Your task to perform on an android device: change the clock display to analog Image 0: 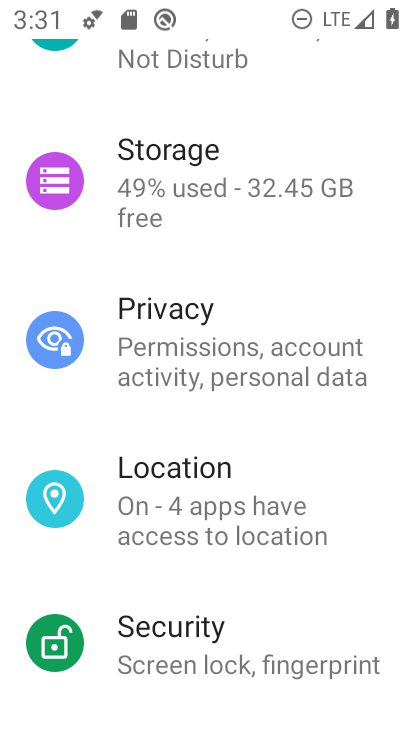
Step 0: press home button
Your task to perform on an android device: change the clock display to analog Image 1: 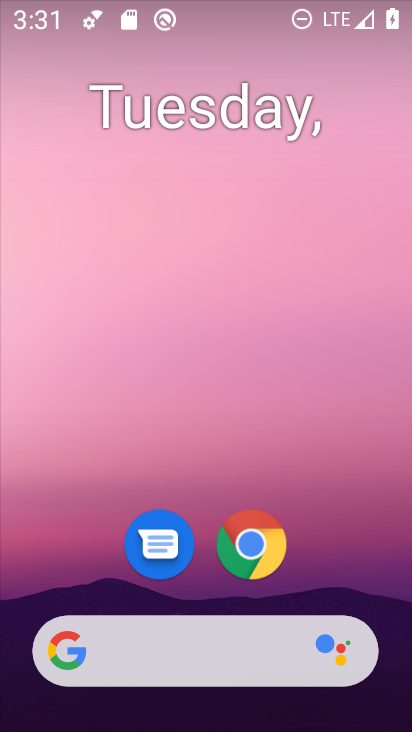
Step 1: drag from (370, 577) to (331, 67)
Your task to perform on an android device: change the clock display to analog Image 2: 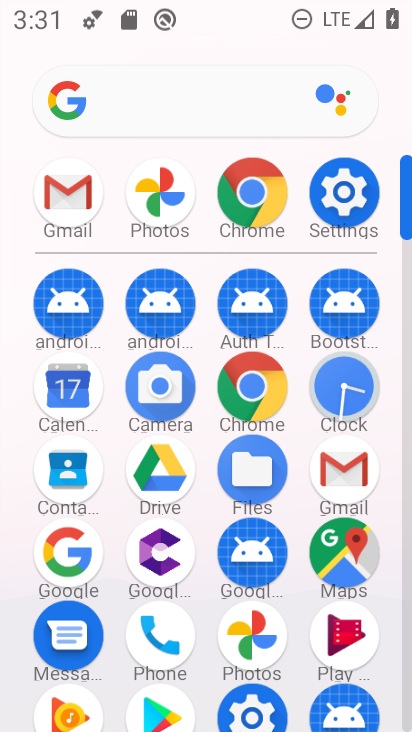
Step 2: click (363, 399)
Your task to perform on an android device: change the clock display to analog Image 3: 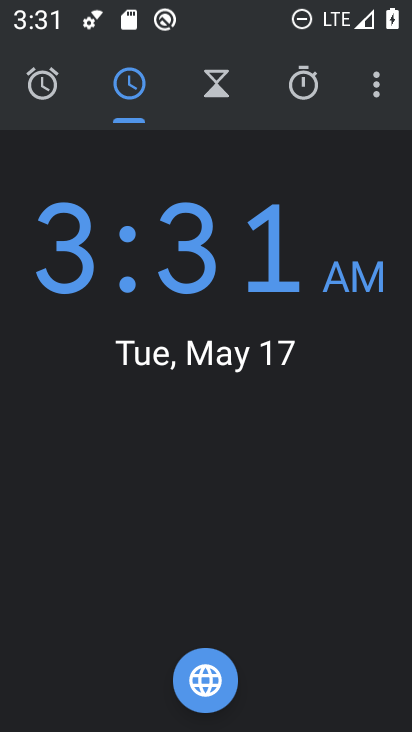
Step 3: click (381, 89)
Your task to perform on an android device: change the clock display to analog Image 4: 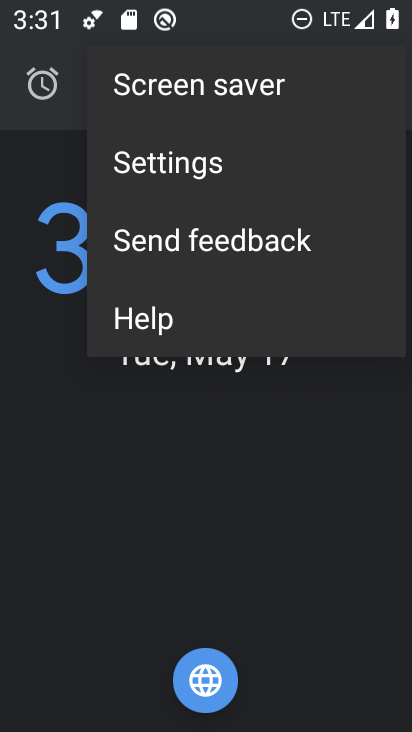
Step 4: click (229, 160)
Your task to perform on an android device: change the clock display to analog Image 5: 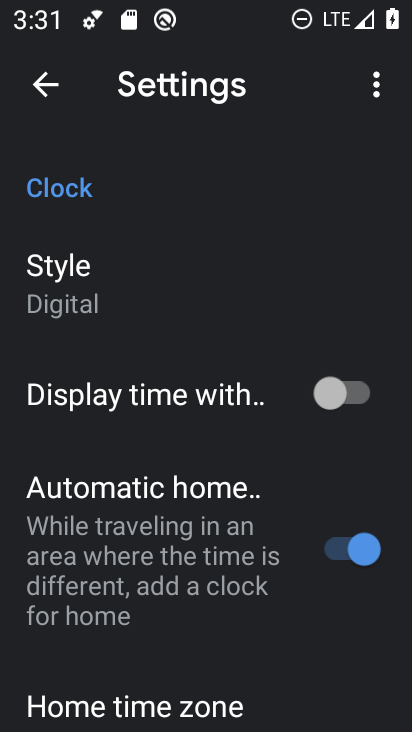
Step 5: drag from (296, 634) to (291, 449)
Your task to perform on an android device: change the clock display to analog Image 6: 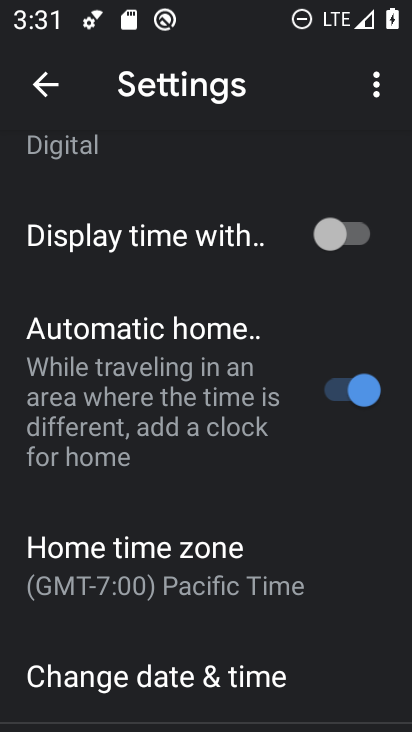
Step 6: drag from (303, 632) to (305, 501)
Your task to perform on an android device: change the clock display to analog Image 7: 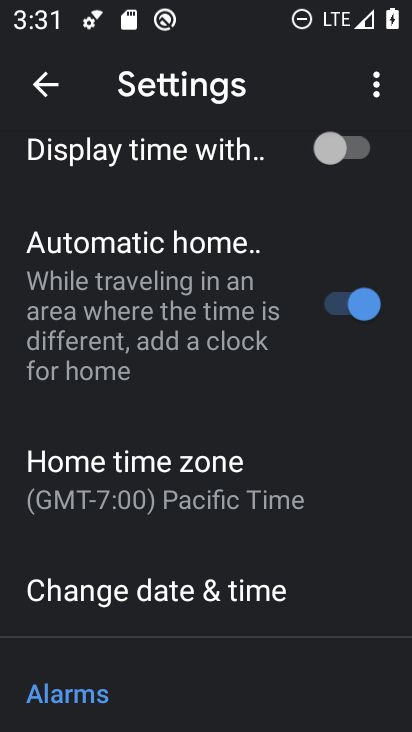
Step 7: drag from (302, 653) to (302, 448)
Your task to perform on an android device: change the clock display to analog Image 8: 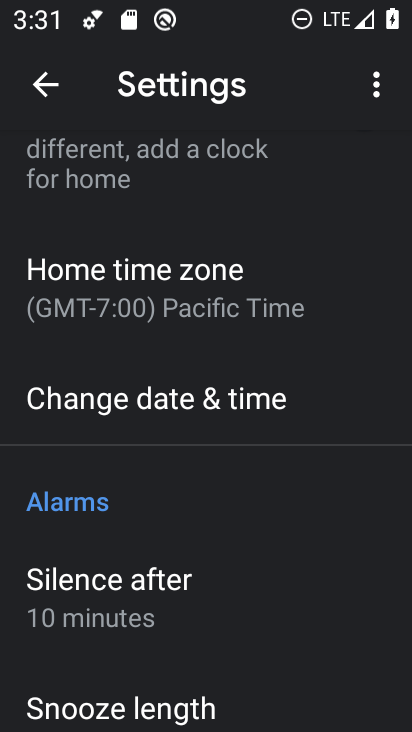
Step 8: drag from (298, 615) to (305, 489)
Your task to perform on an android device: change the clock display to analog Image 9: 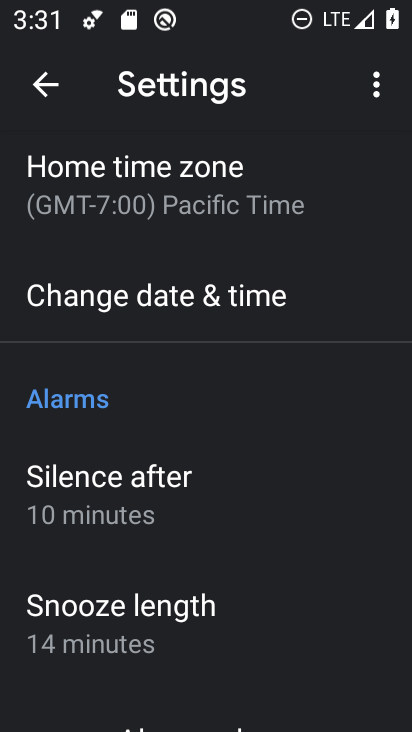
Step 9: drag from (300, 641) to (298, 535)
Your task to perform on an android device: change the clock display to analog Image 10: 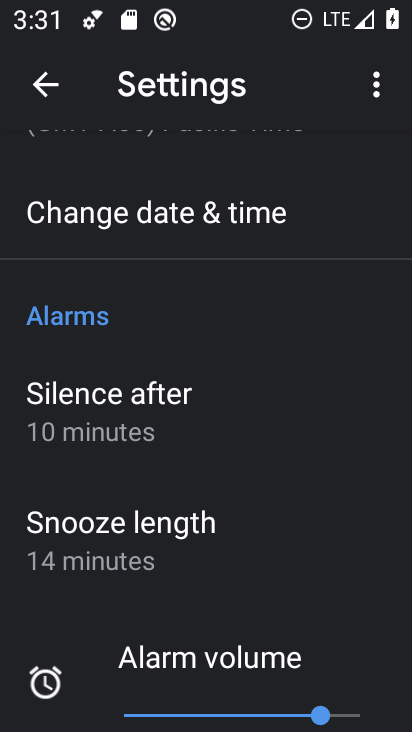
Step 10: drag from (319, 621) to (337, 498)
Your task to perform on an android device: change the clock display to analog Image 11: 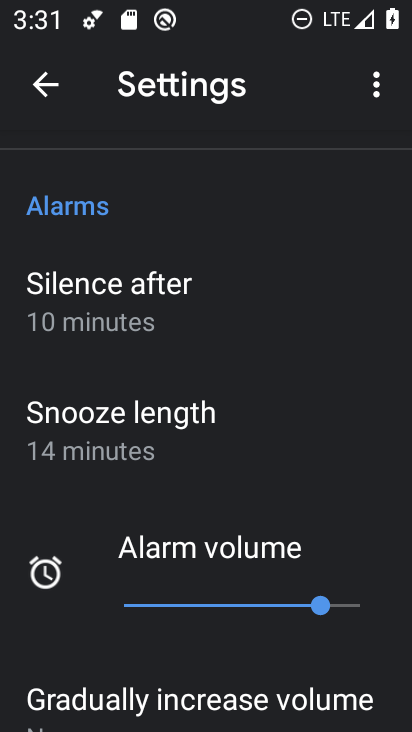
Step 11: drag from (328, 658) to (329, 533)
Your task to perform on an android device: change the clock display to analog Image 12: 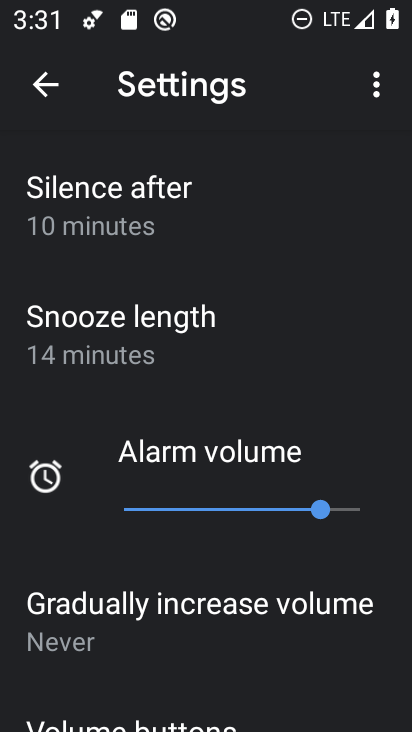
Step 12: drag from (322, 662) to (315, 519)
Your task to perform on an android device: change the clock display to analog Image 13: 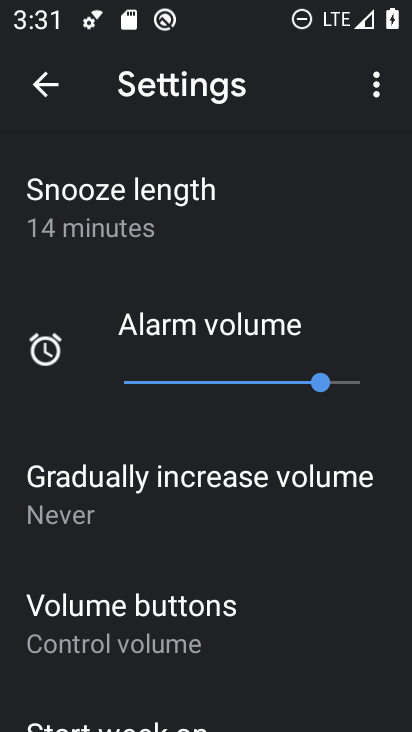
Step 13: drag from (302, 661) to (316, 534)
Your task to perform on an android device: change the clock display to analog Image 14: 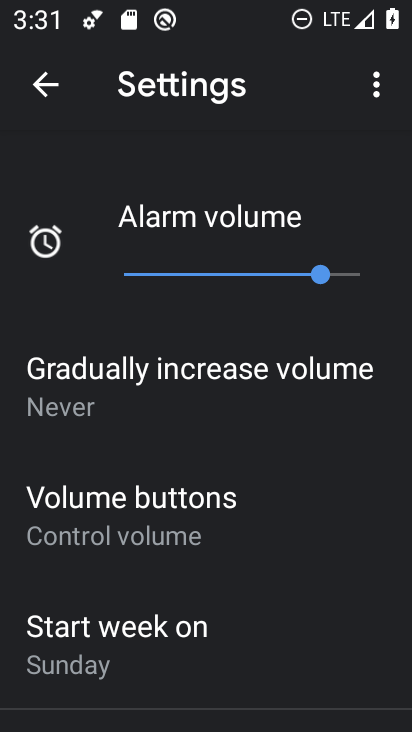
Step 14: drag from (312, 667) to (312, 542)
Your task to perform on an android device: change the clock display to analog Image 15: 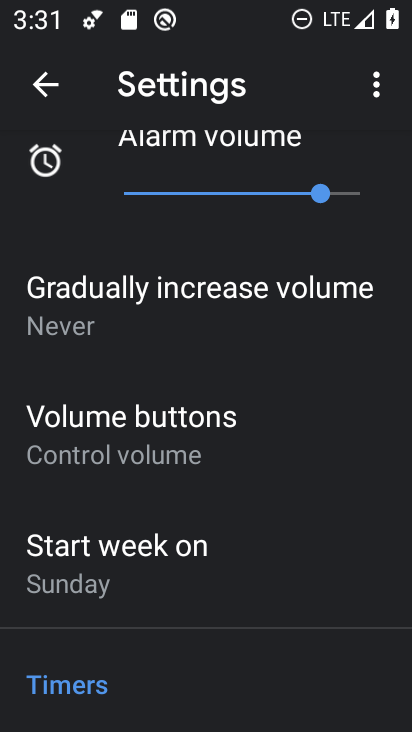
Step 15: drag from (301, 635) to (297, 552)
Your task to perform on an android device: change the clock display to analog Image 16: 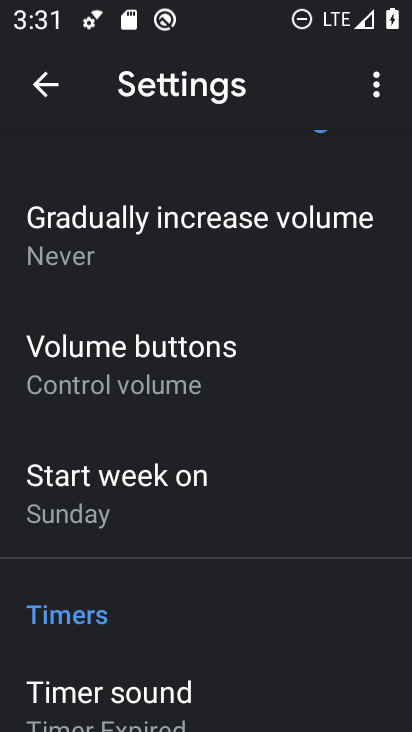
Step 16: drag from (312, 652) to (318, 577)
Your task to perform on an android device: change the clock display to analog Image 17: 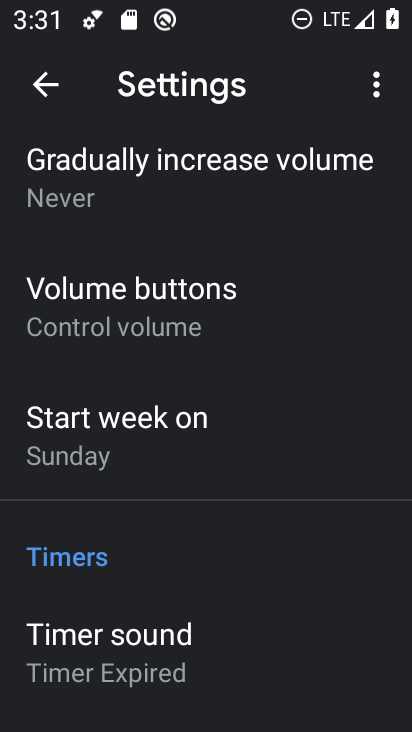
Step 17: drag from (308, 392) to (318, 542)
Your task to perform on an android device: change the clock display to analog Image 18: 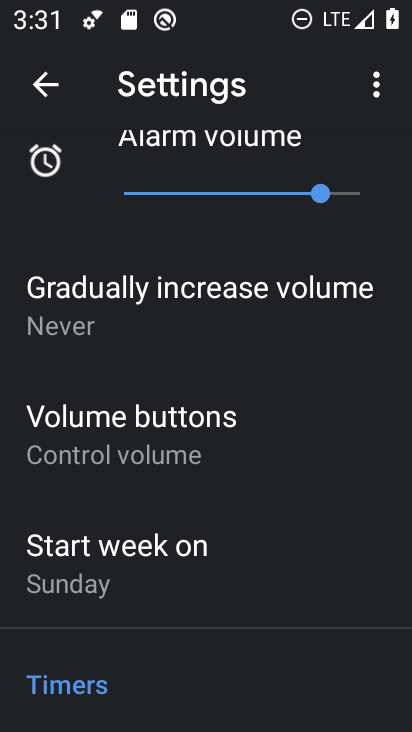
Step 18: drag from (336, 378) to (343, 471)
Your task to perform on an android device: change the clock display to analog Image 19: 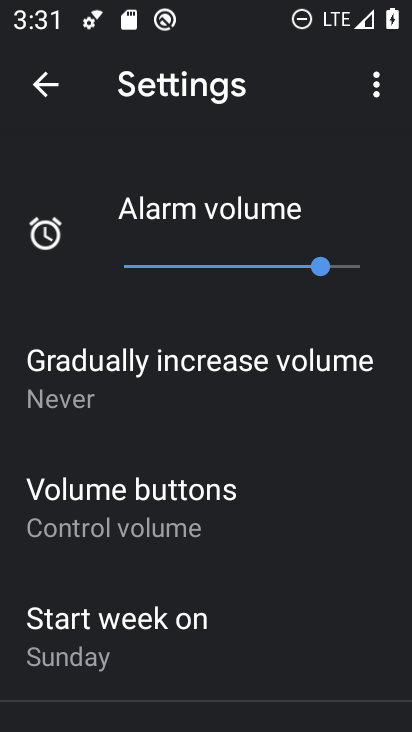
Step 19: drag from (329, 316) to (330, 465)
Your task to perform on an android device: change the clock display to analog Image 20: 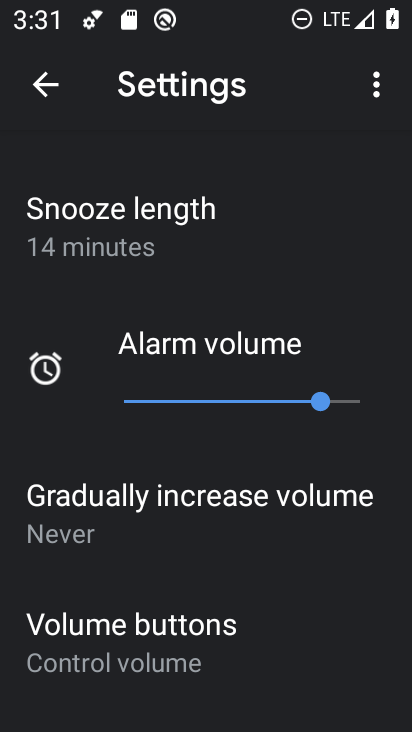
Step 20: drag from (330, 283) to (333, 395)
Your task to perform on an android device: change the clock display to analog Image 21: 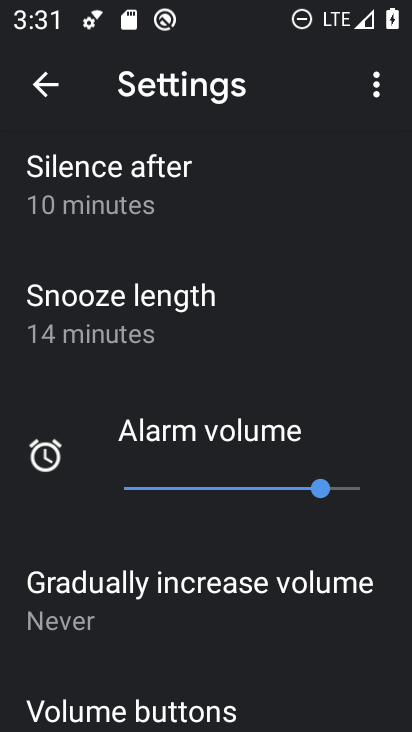
Step 21: drag from (328, 250) to (332, 381)
Your task to perform on an android device: change the clock display to analog Image 22: 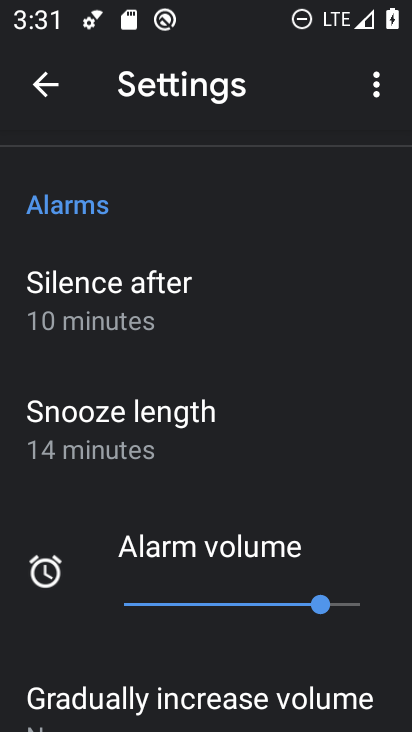
Step 22: drag from (328, 272) to (334, 398)
Your task to perform on an android device: change the clock display to analog Image 23: 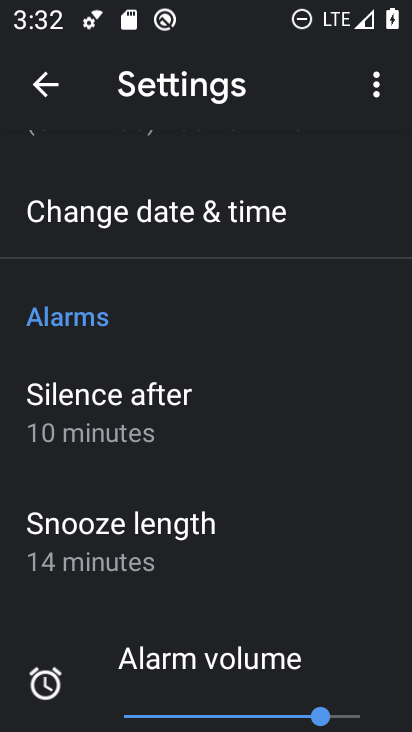
Step 23: drag from (321, 198) to (323, 343)
Your task to perform on an android device: change the clock display to analog Image 24: 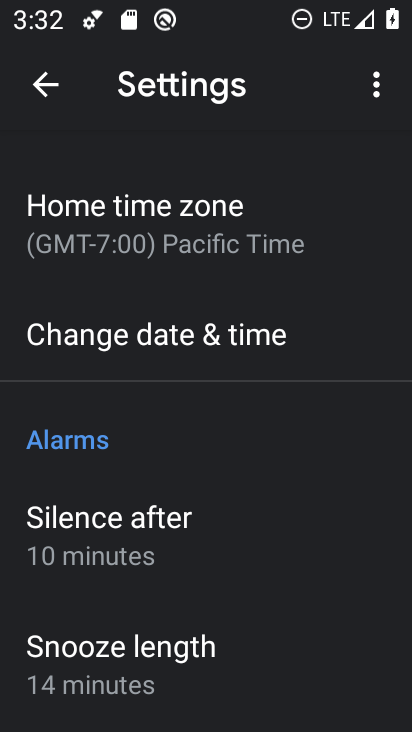
Step 24: drag from (332, 202) to (335, 334)
Your task to perform on an android device: change the clock display to analog Image 25: 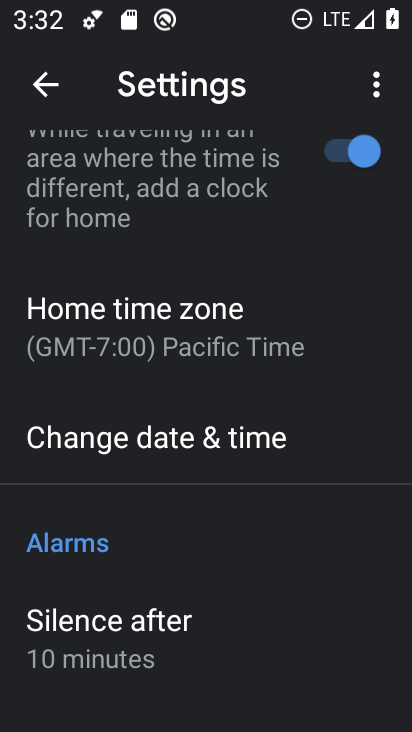
Step 25: drag from (298, 228) to (305, 428)
Your task to perform on an android device: change the clock display to analog Image 26: 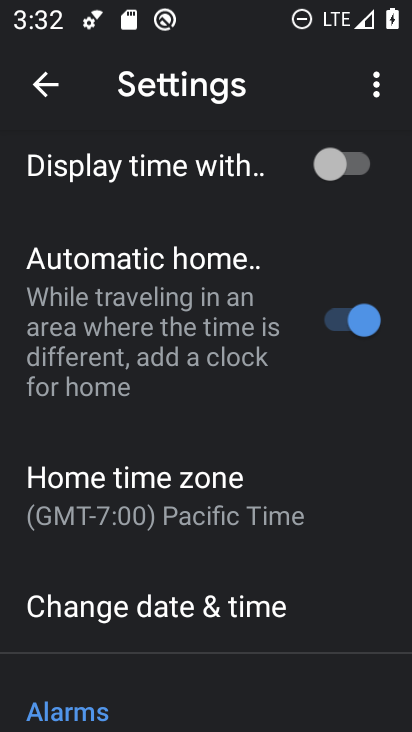
Step 26: drag from (270, 197) to (284, 370)
Your task to perform on an android device: change the clock display to analog Image 27: 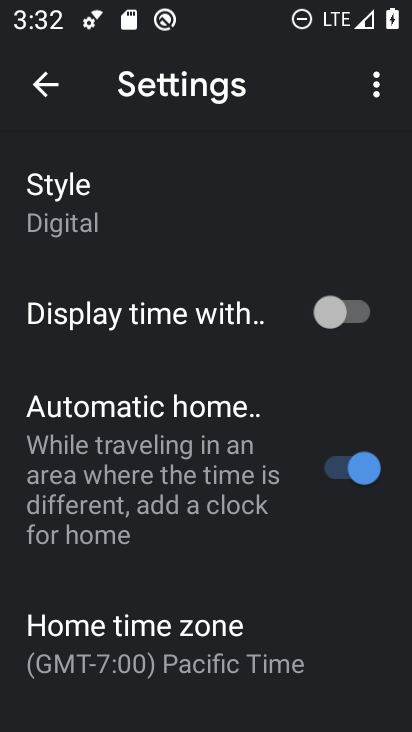
Step 27: drag from (265, 193) to (267, 320)
Your task to perform on an android device: change the clock display to analog Image 28: 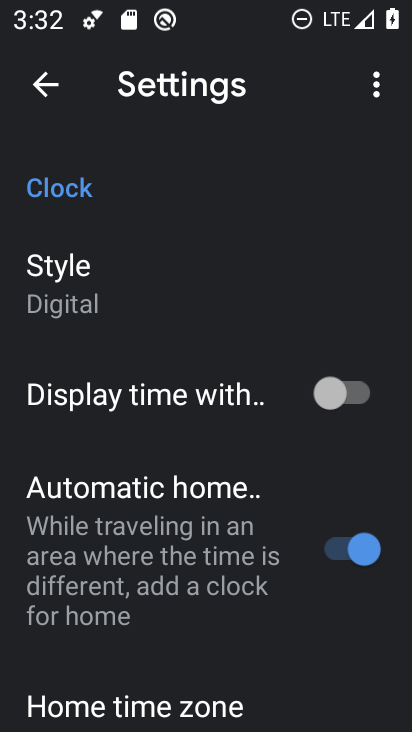
Step 28: click (63, 294)
Your task to perform on an android device: change the clock display to analog Image 29: 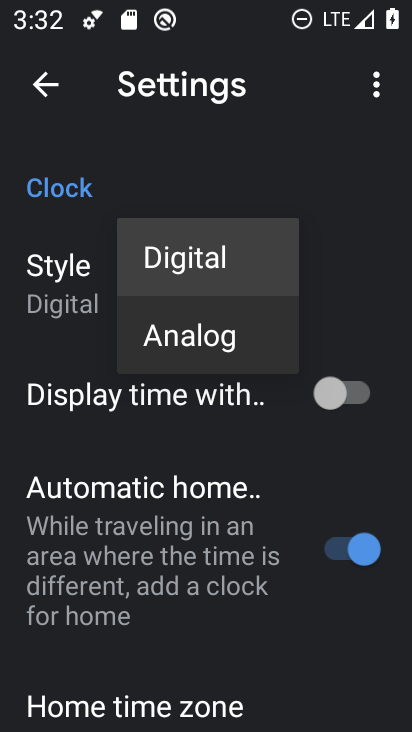
Step 29: click (195, 342)
Your task to perform on an android device: change the clock display to analog Image 30: 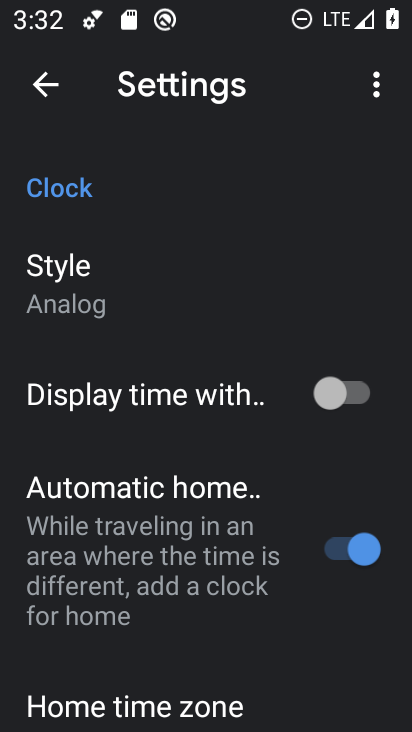
Step 30: task complete